Your task to perform on an android device: open app "Microsoft Outlook" (install if not already installed) and enter user name: "brand@gmail.com" and password: "persuasiveness" Image 0: 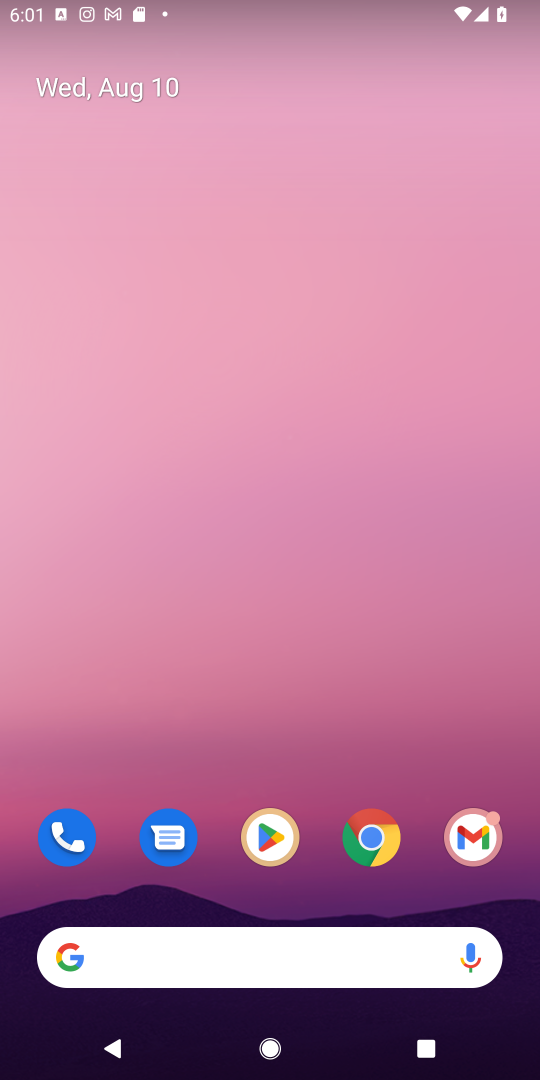
Step 0: click (273, 841)
Your task to perform on an android device: open app "Microsoft Outlook" (install if not already installed) and enter user name: "brand@gmail.com" and password: "persuasiveness" Image 1: 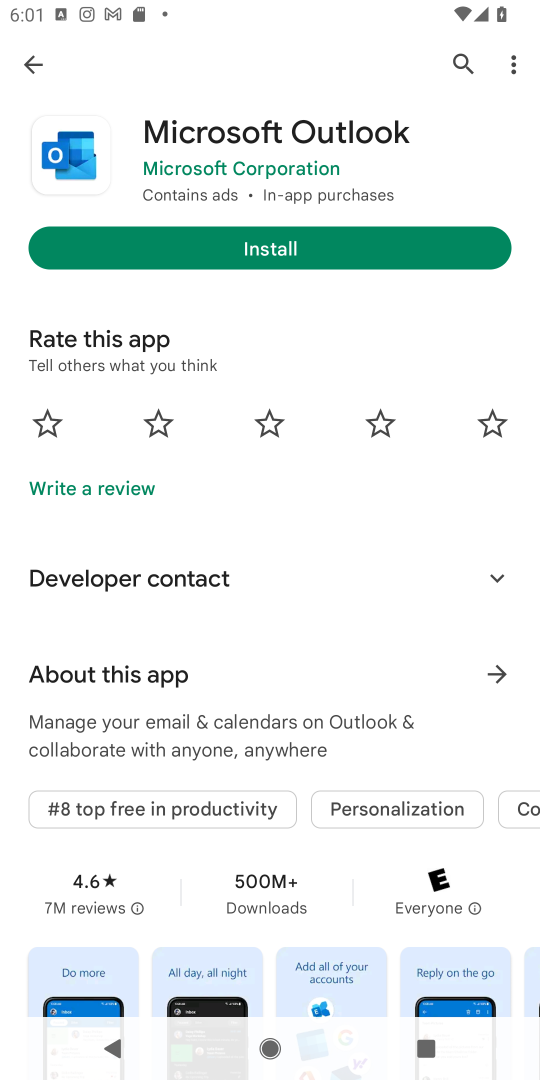
Step 1: click (453, 58)
Your task to perform on an android device: open app "Microsoft Outlook" (install if not already installed) and enter user name: "brand@gmail.com" and password: "persuasiveness" Image 2: 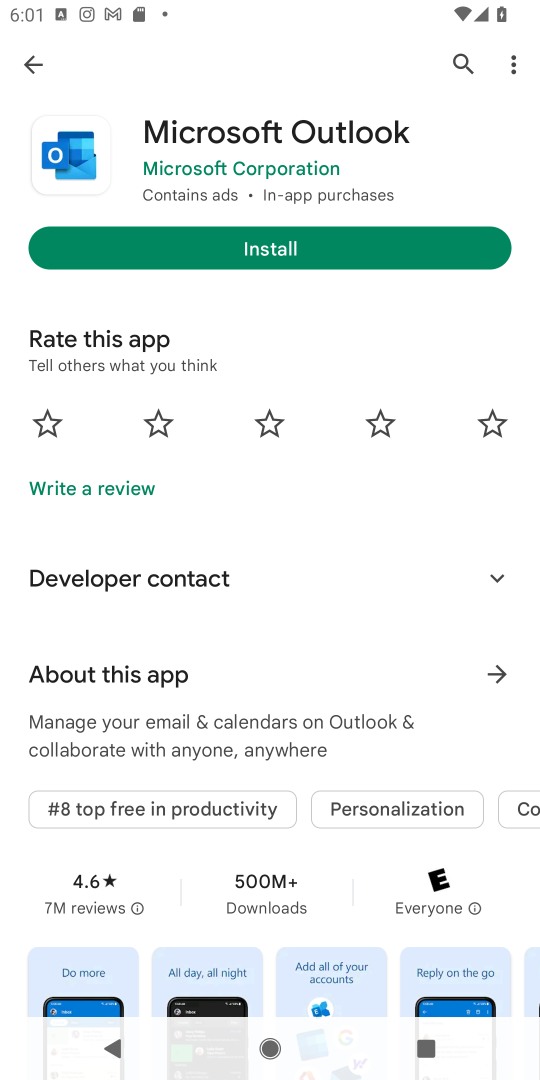
Step 2: click (453, 57)
Your task to perform on an android device: open app "Microsoft Outlook" (install if not already installed) and enter user name: "brand@gmail.com" and password: "persuasiveness" Image 3: 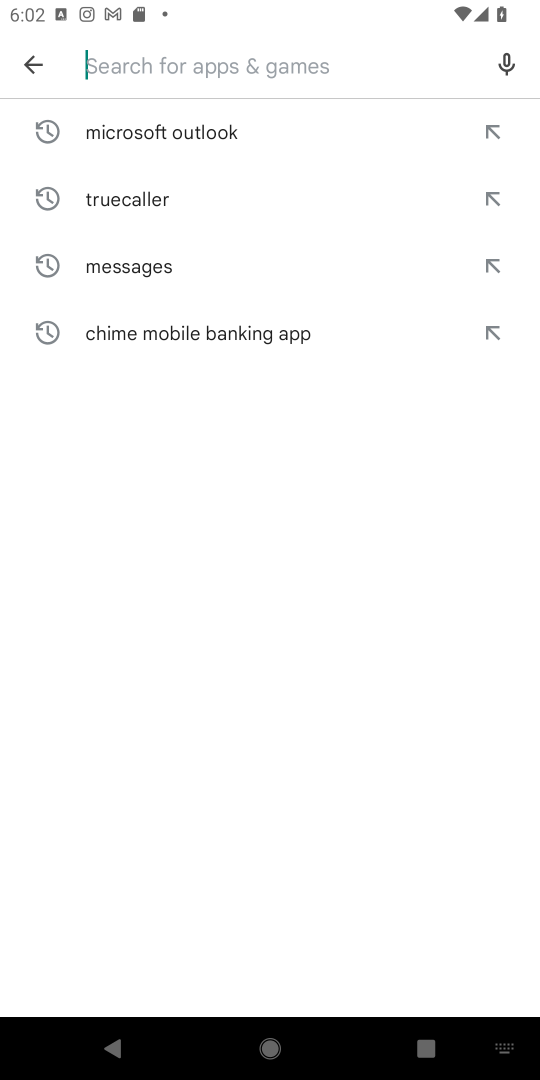
Step 3: type "Microsoft Outlook"
Your task to perform on an android device: open app "Microsoft Outlook" (install if not already installed) and enter user name: "brand@gmail.com" and password: "persuasiveness" Image 4: 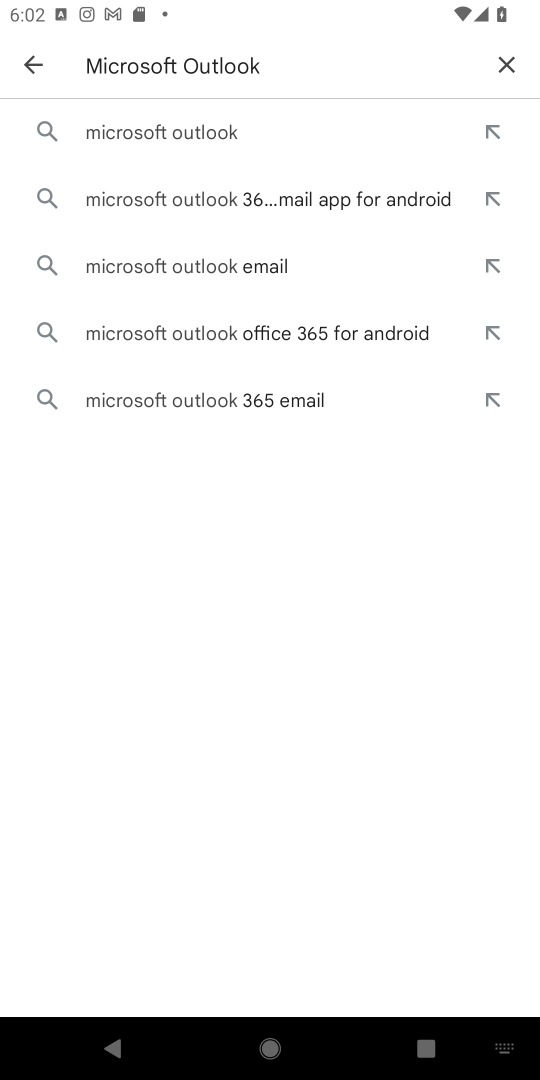
Step 4: click (166, 134)
Your task to perform on an android device: open app "Microsoft Outlook" (install if not already installed) and enter user name: "brand@gmail.com" and password: "persuasiveness" Image 5: 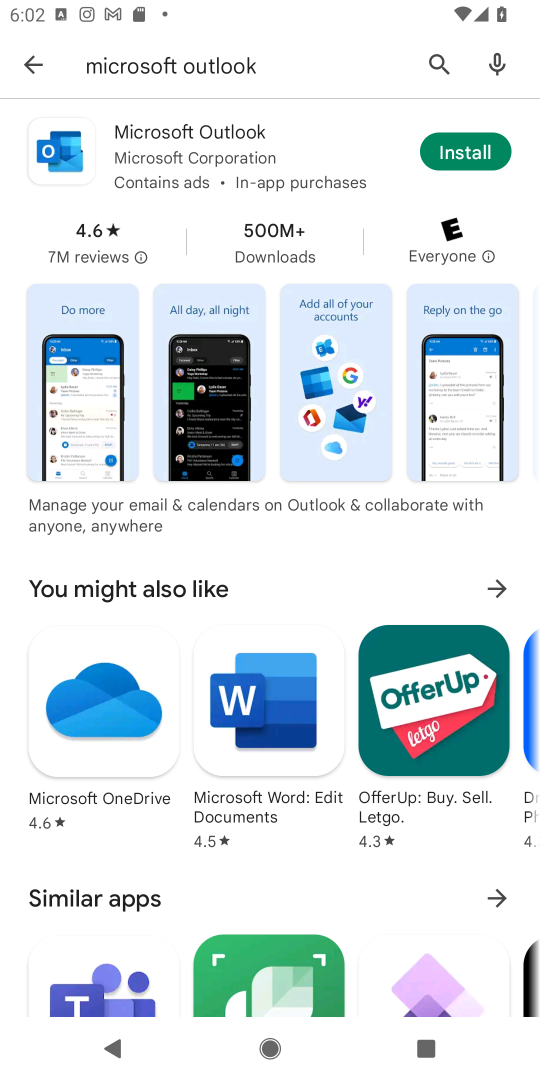
Step 5: click (452, 150)
Your task to perform on an android device: open app "Microsoft Outlook" (install if not already installed) and enter user name: "brand@gmail.com" and password: "persuasiveness" Image 6: 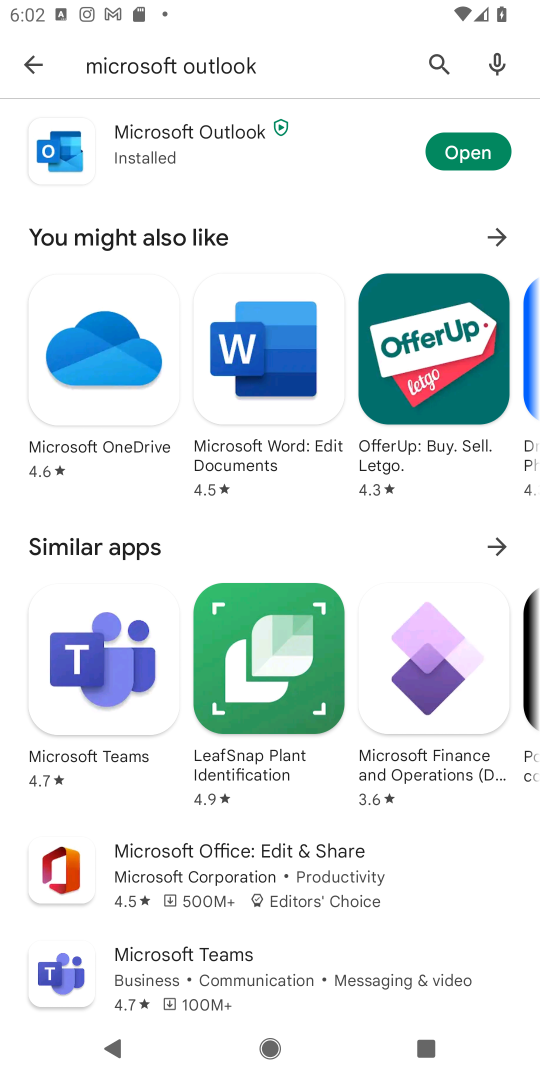
Step 6: click (470, 162)
Your task to perform on an android device: open app "Microsoft Outlook" (install if not already installed) and enter user name: "brand@gmail.com" and password: "persuasiveness" Image 7: 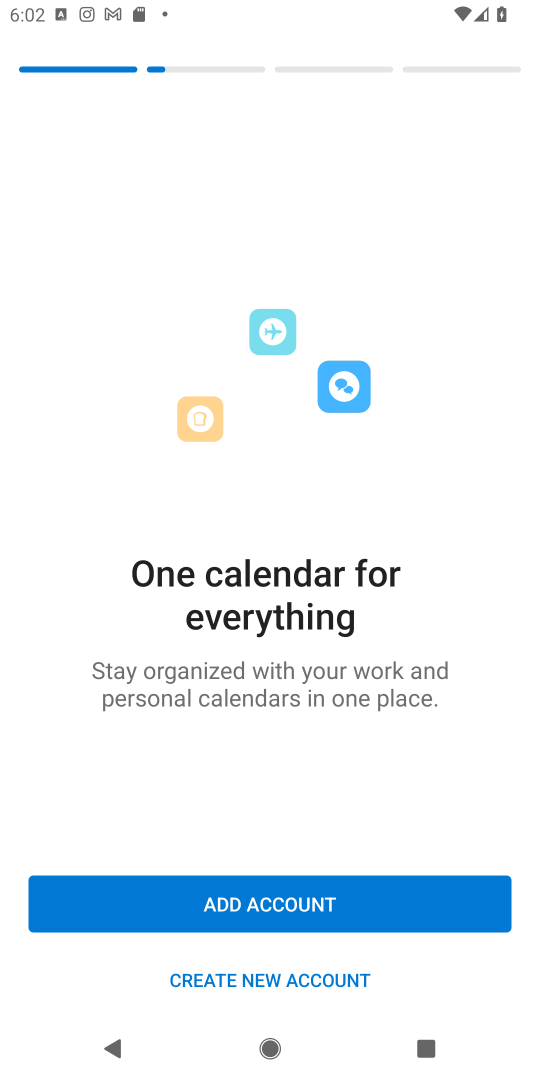
Step 7: click (252, 973)
Your task to perform on an android device: open app "Microsoft Outlook" (install if not already installed) and enter user name: "brand@gmail.com" and password: "persuasiveness" Image 8: 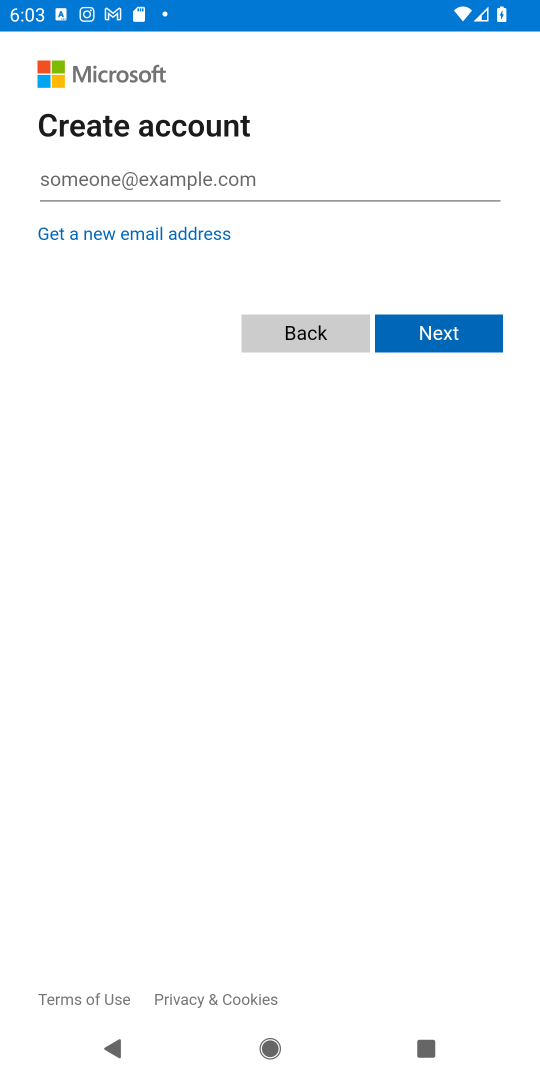
Step 8: click (114, 181)
Your task to perform on an android device: open app "Microsoft Outlook" (install if not already installed) and enter user name: "brand@gmail.com" and password: "persuasiveness" Image 9: 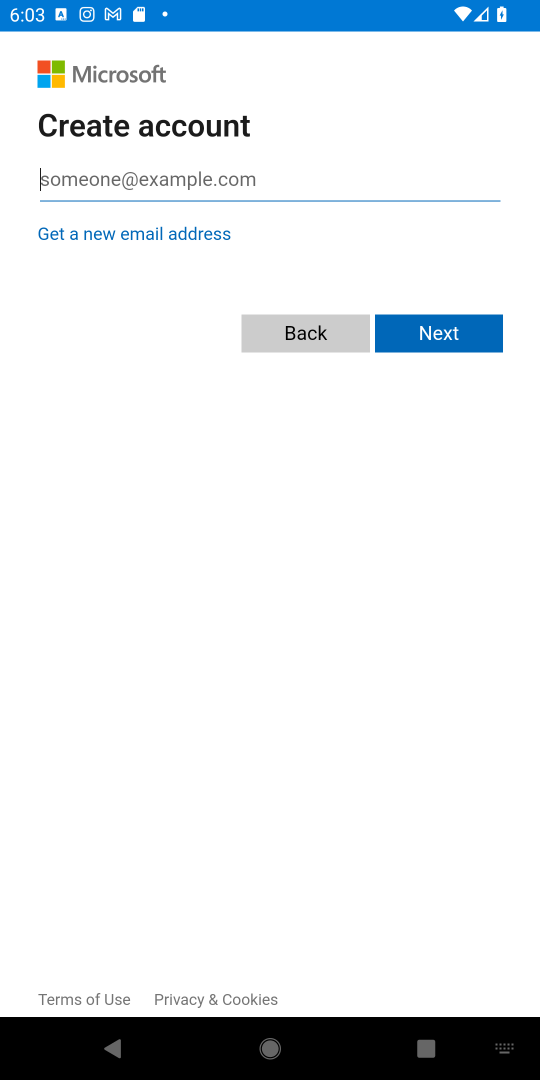
Step 9: type "brand@gmail.com"
Your task to perform on an android device: open app "Microsoft Outlook" (install if not already installed) and enter user name: "brand@gmail.com" and password: "persuasiveness" Image 10: 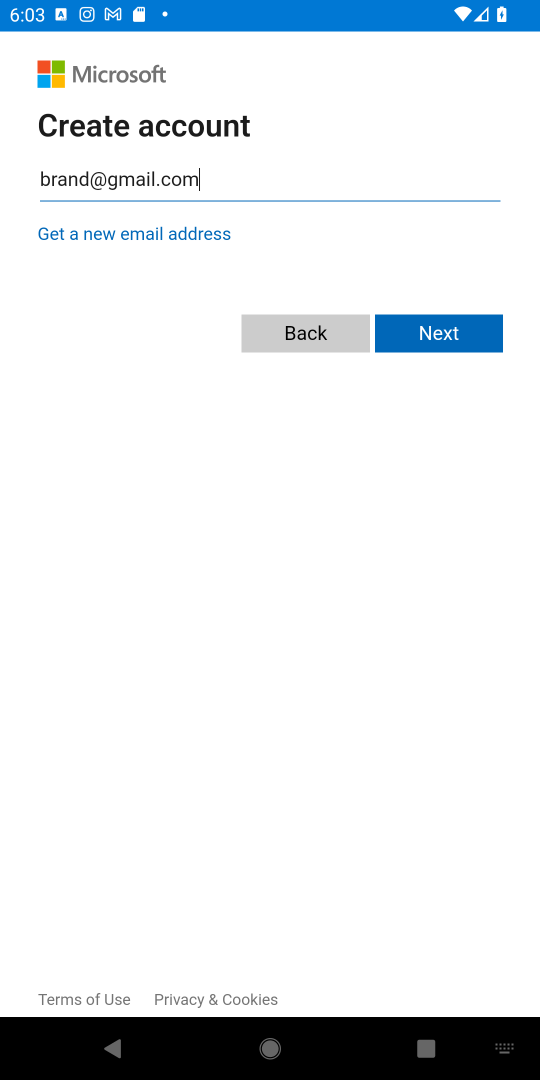
Step 10: click (471, 335)
Your task to perform on an android device: open app "Microsoft Outlook" (install if not already installed) and enter user name: "brand@gmail.com" and password: "persuasiveness" Image 11: 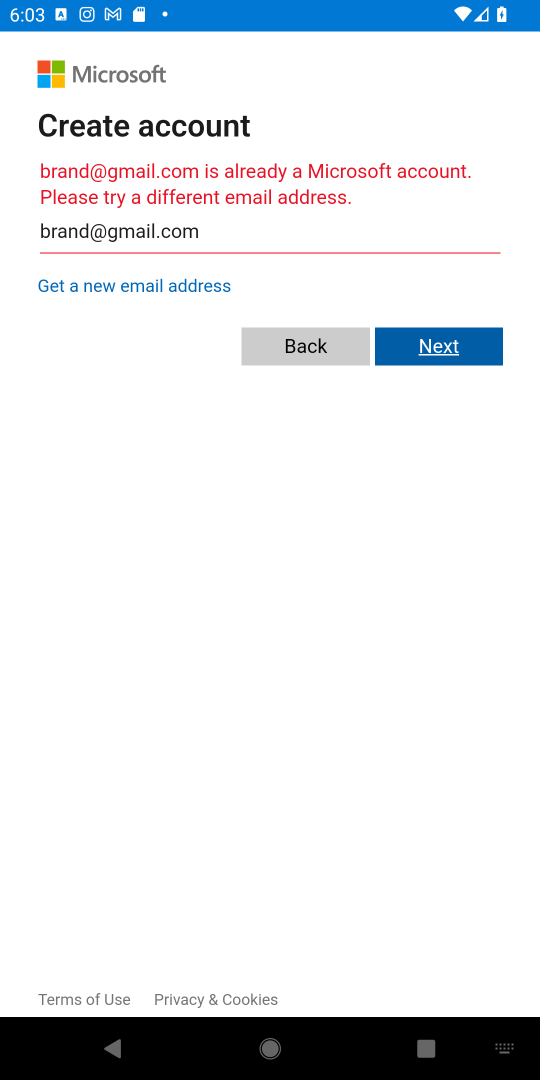
Step 11: task complete